Your task to perform on an android device: turn off translation in the chrome app Image 0: 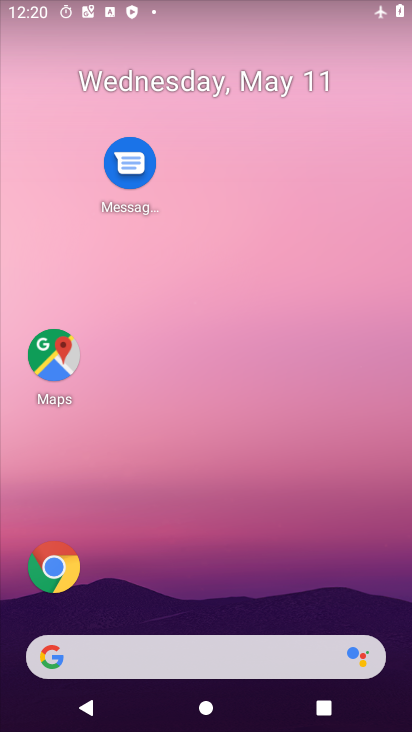
Step 0: drag from (261, 574) to (217, 128)
Your task to perform on an android device: turn off translation in the chrome app Image 1: 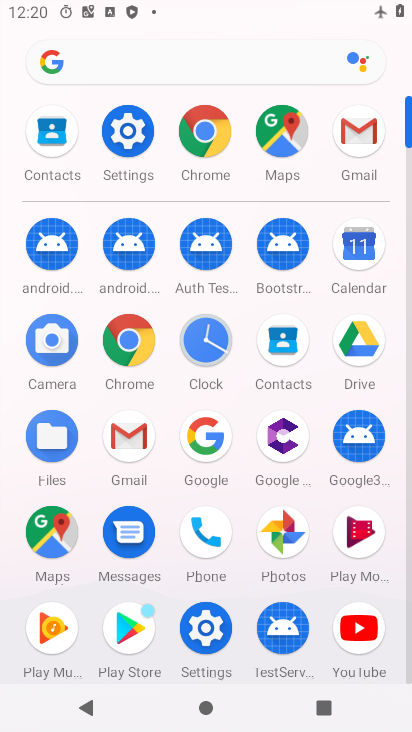
Step 1: click (117, 356)
Your task to perform on an android device: turn off translation in the chrome app Image 2: 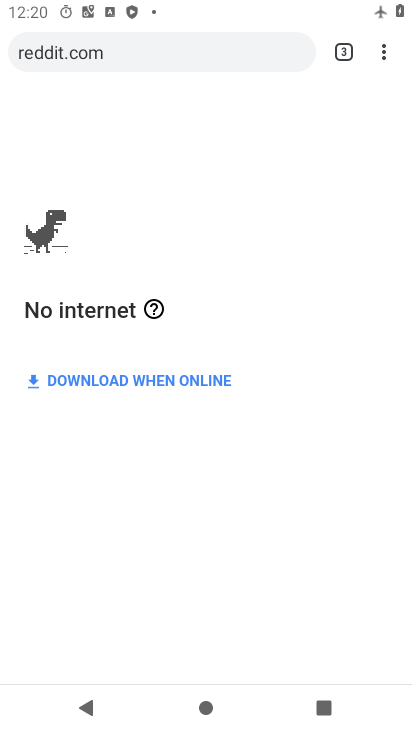
Step 2: click (390, 59)
Your task to perform on an android device: turn off translation in the chrome app Image 3: 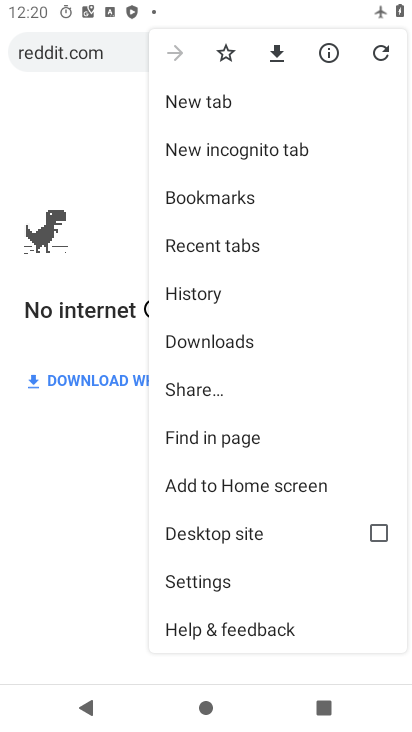
Step 3: click (234, 584)
Your task to perform on an android device: turn off translation in the chrome app Image 4: 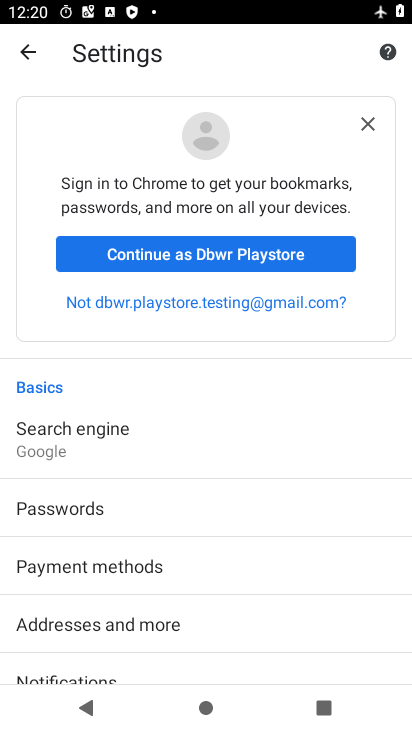
Step 4: click (275, 666)
Your task to perform on an android device: turn off translation in the chrome app Image 5: 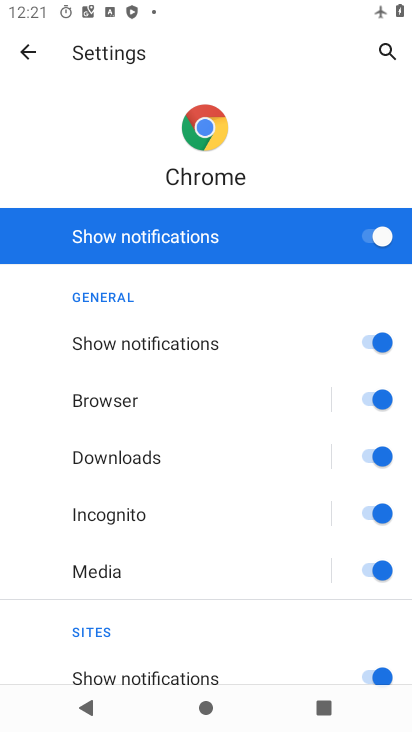
Step 5: drag from (167, 540) to (156, 216)
Your task to perform on an android device: turn off translation in the chrome app Image 6: 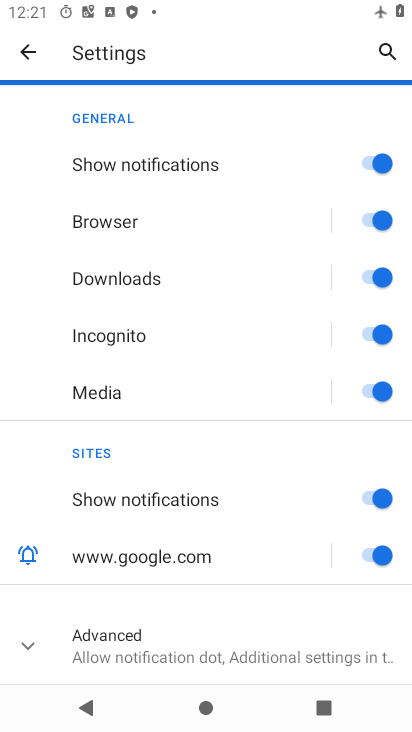
Step 6: click (29, 56)
Your task to perform on an android device: turn off translation in the chrome app Image 7: 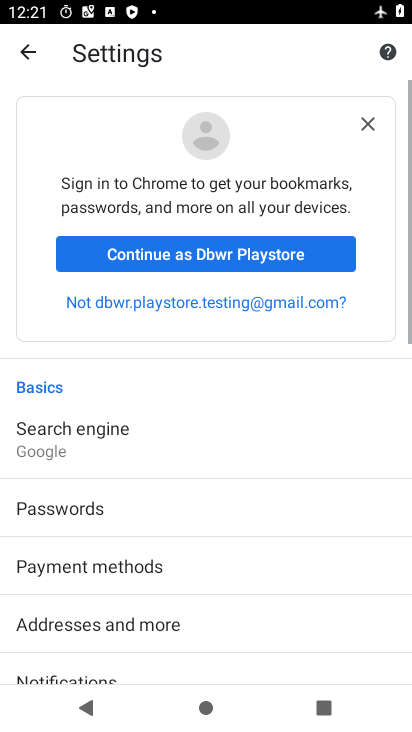
Step 7: drag from (207, 578) to (184, 192)
Your task to perform on an android device: turn off translation in the chrome app Image 8: 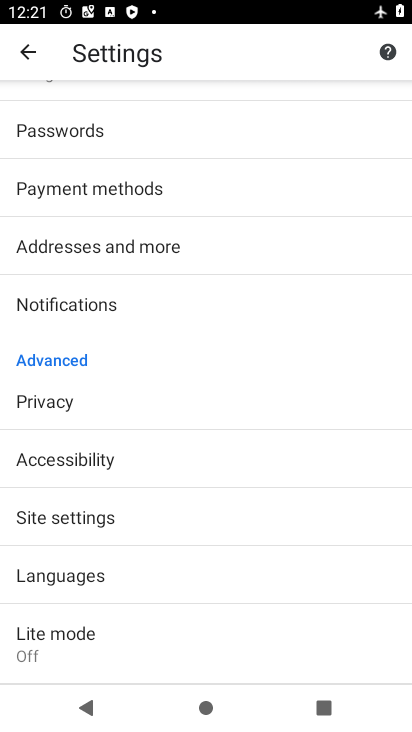
Step 8: click (109, 577)
Your task to perform on an android device: turn off translation in the chrome app Image 9: 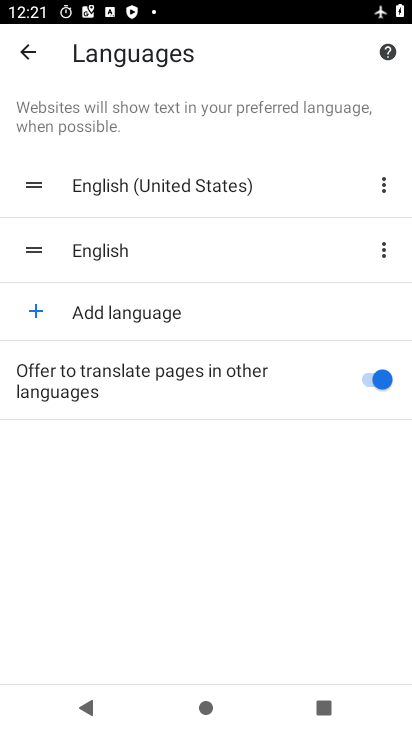
Step 9: click (368, 367)
Your task to perform on an android device: turn off translation in the chrome app Image 10: 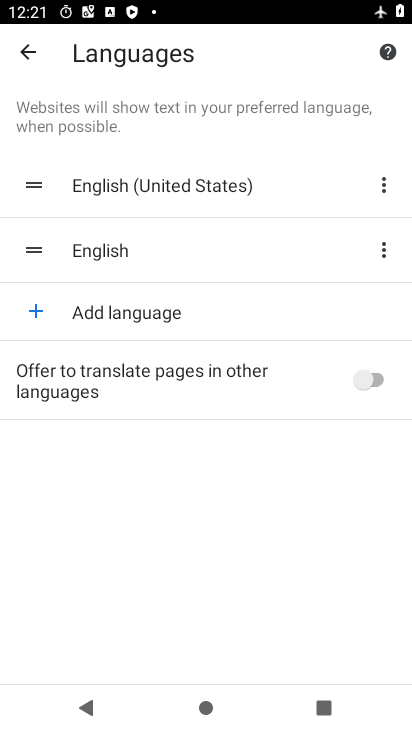
Step 10: task complete